Your task to perform on an android device: move a message to another label in the gmail app Image 0: 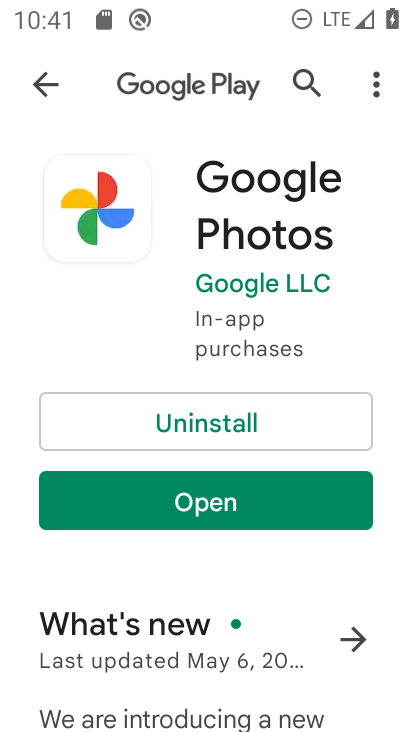
Step 0: press home button
Your task to perform on an android device: move a message to another label in the gmail app Image 1: 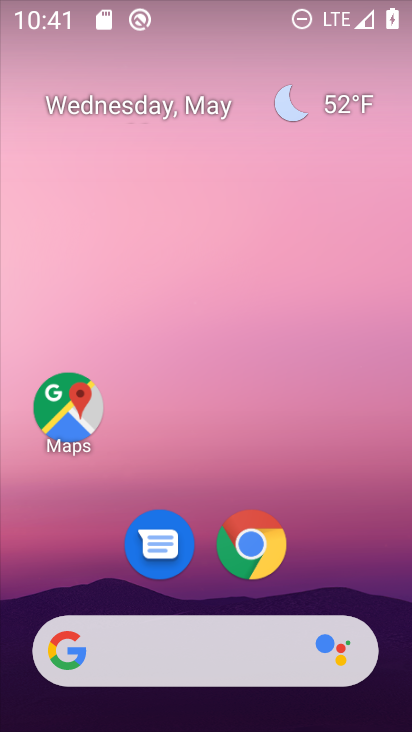
Step 1: drag from (203, 582) to (172, 75)
Your task to perform on an android device: move a message to another label in the gmail app Image 2: 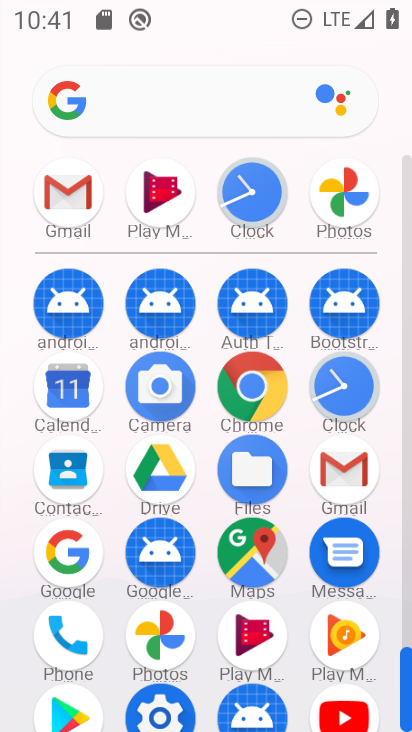
Step 2: click (94, 195)
Your task to perform on an android device: move a message to another label in the gmail app Image 3: 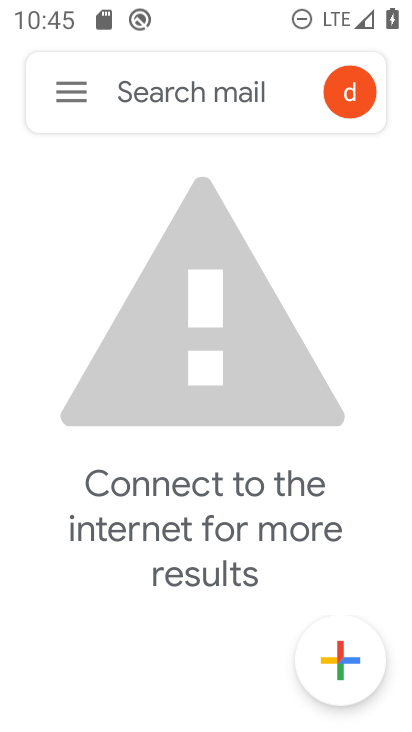
Step 3: click (240, 377)
Your task to perform on an android device: move a message to another label in the gmail app Image 4: 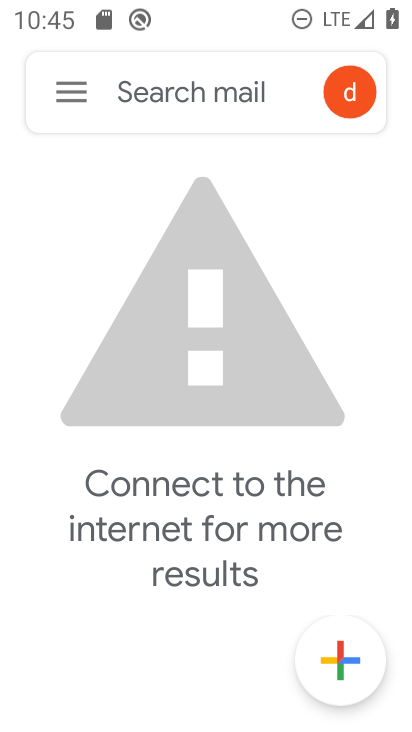
Step 4: task complete